Your task to perform on an android device: turn pop-ups on in chrome Image 0: 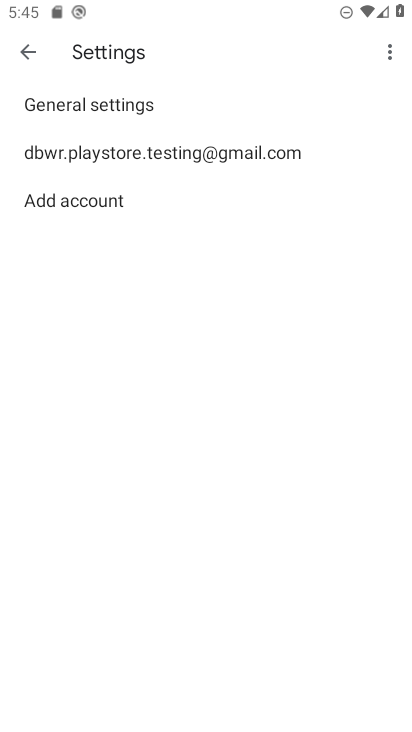
Step 0: press home button
Your task to perform on an android device: turn pop-ups on in chrome Image 1: 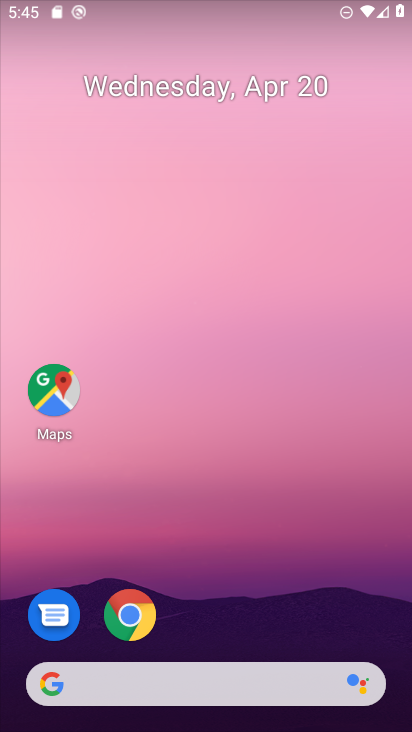
Step 1: click (140, 615)
Your task to perform on an android device: turn pop-ups on in chrome Image 2: 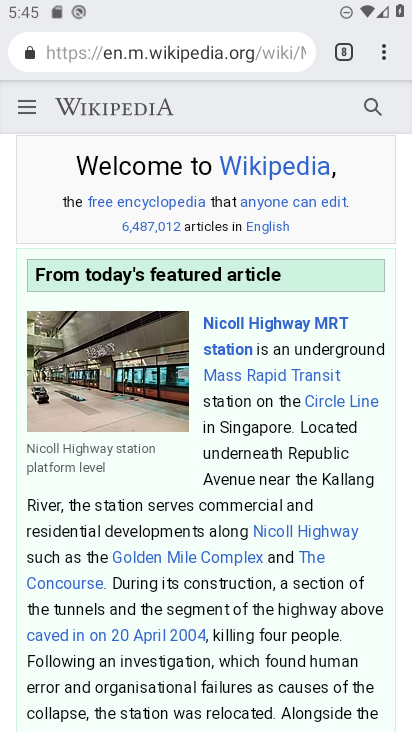
Step 2: click (383, 52)
Your task to perform on an android device: turn pop-ups on in chrome Image 3: 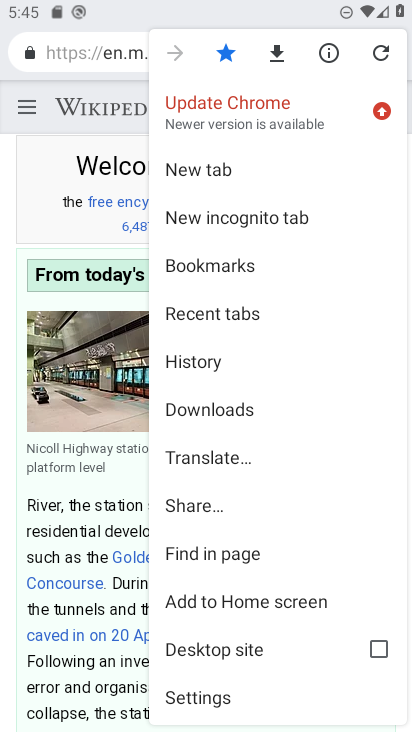
Step 3: click (212, 697)
Your task to perform on an android device: turn pop-ups on in chrome Image 4: 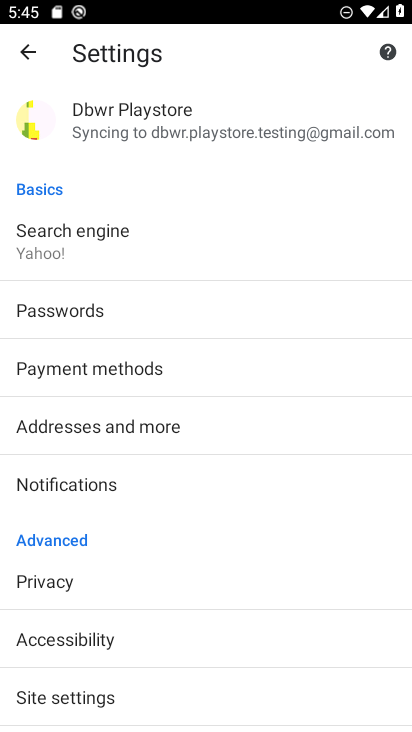
Step 4: click (122, 692)
Your task to perform on an android device: turn pop-ups on in chrome Image 5: 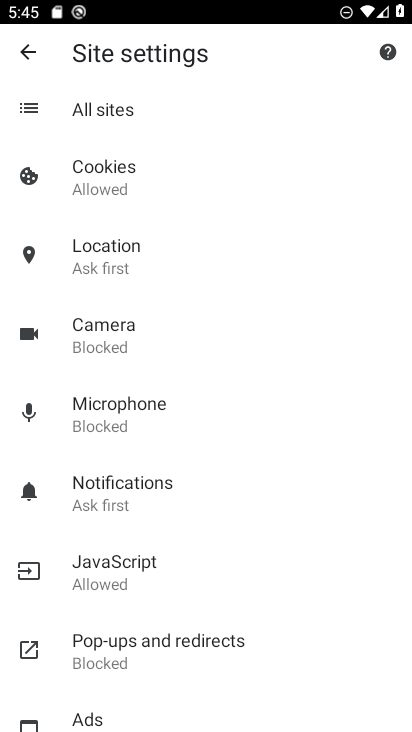
Step 5: click (120, 650)
Your task to perform on an android device: turn pop-ups on in chrome Image 6: 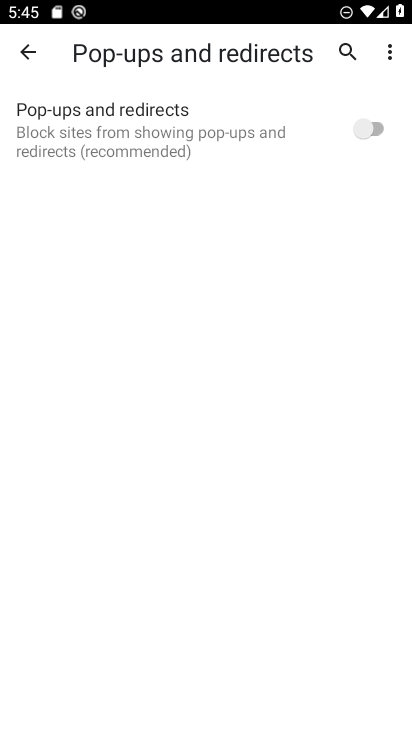
Step 6: click (374, 122)
Your task to perform on an android device: turn pop-ups on in chrome Image 7: 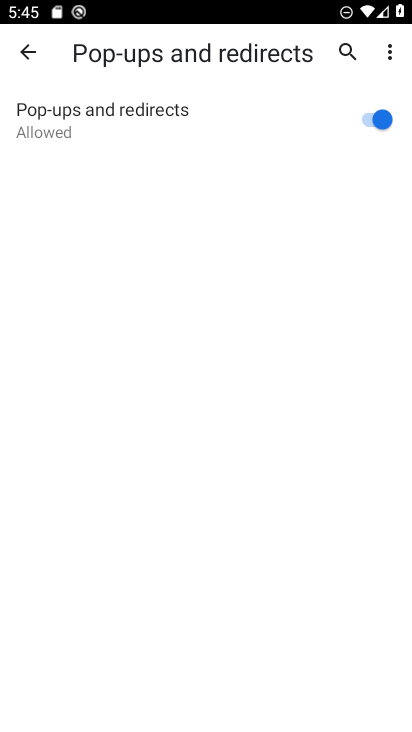
Step 7: task complete